Your task to perform on an android device: Go to Google maps Image 0: 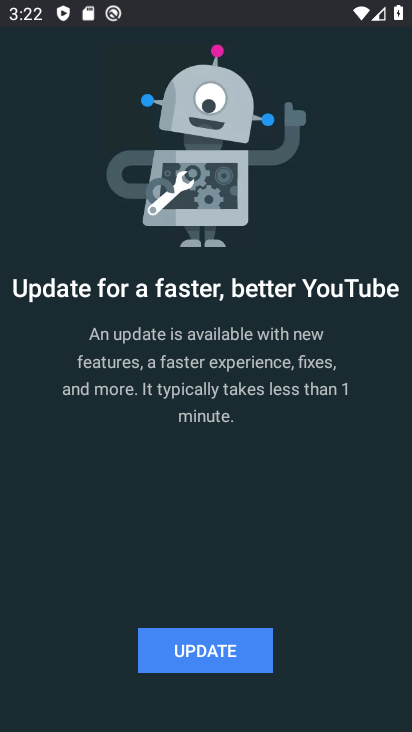
Step 0: press home button
Your task to perform on an android device: Go to Google maps Image 1: 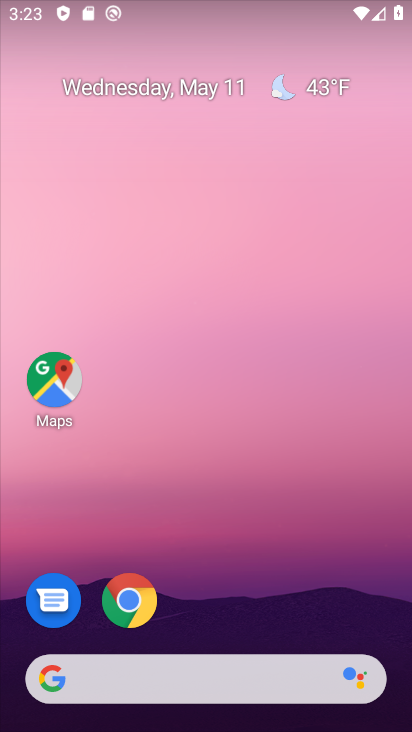
Step 1: click (56, 385)
Your task to perform on an android device: Go to Google maps Image 2: 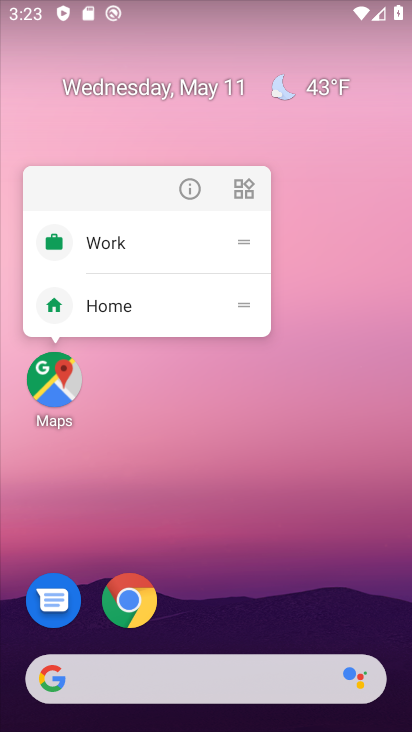
Step 2: click (52, 369)
Your task to perform on an android device: Go to Google maps Image 3: 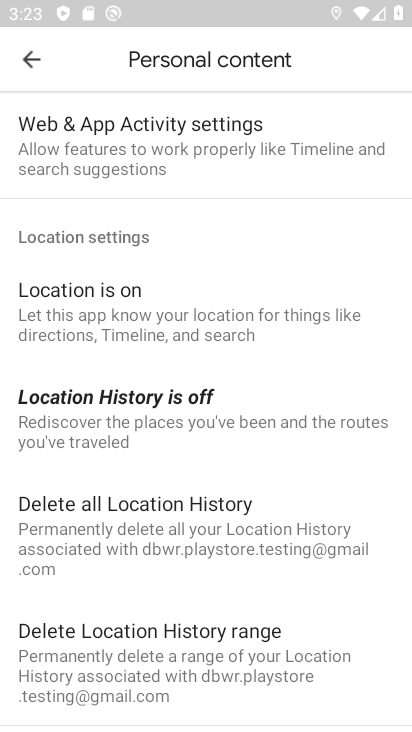
Step 3: task complete